Your task to perform on an android device: change alarm snooze length Image 0: 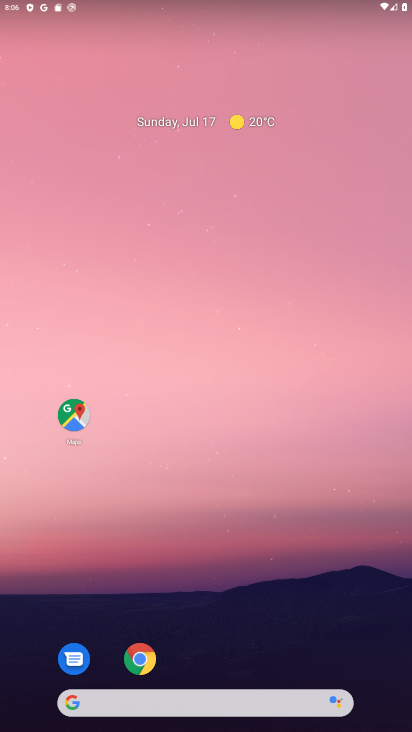
Step 0: drag from (215, 682) to (229, 234)
Your task to perform on an android device: change alarm snooze length Image 1: 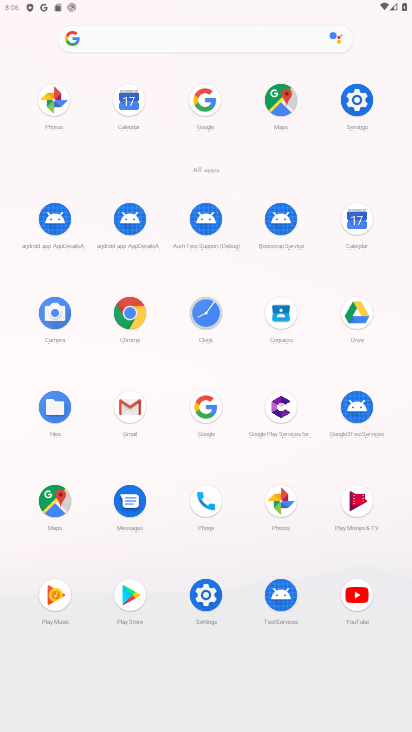
Step 1: click (199, 317)
Your task to perform on an android device: change alarm snooze length Image 2: 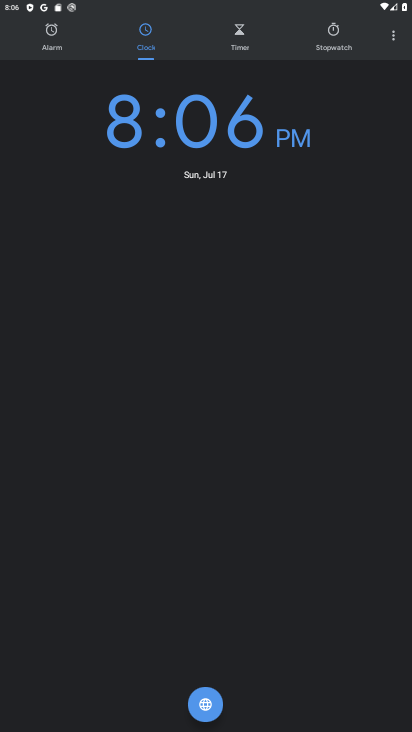
Step 2: click (385, 47)
Your task to perform on an android device: change alarm snooze length Image 3: 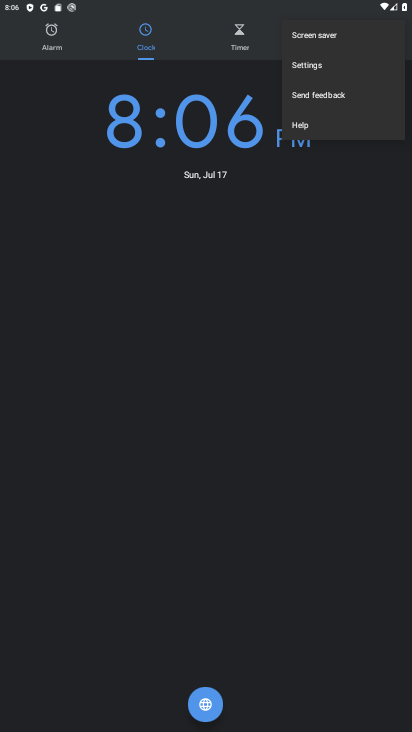
Step 3: click (326, 69)
Your task to perform on an android device: change alarm snooze length Image 4: 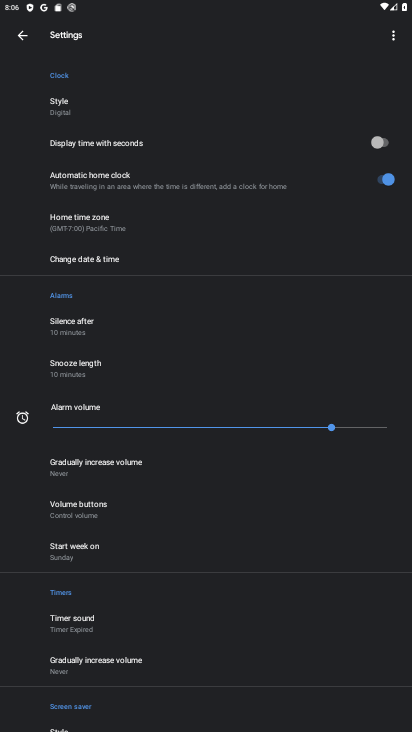
Step 4: click (106, 377)
Your task to perform on an android device: change alarm snooze length Image 5: 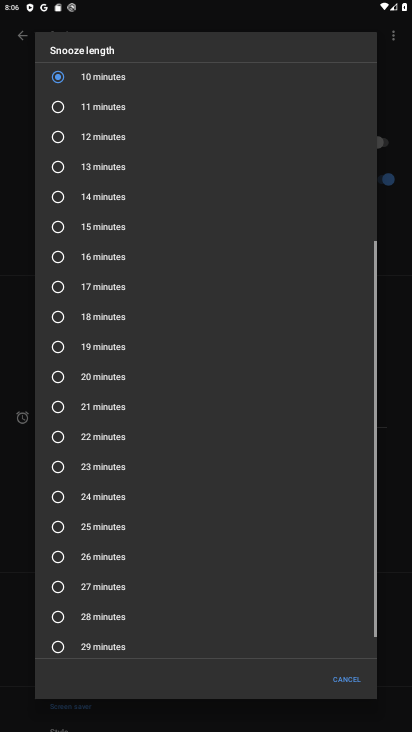
Step 5: click (106, 377)
Your task to perform on an android device: change alarm snooze length Image 6: 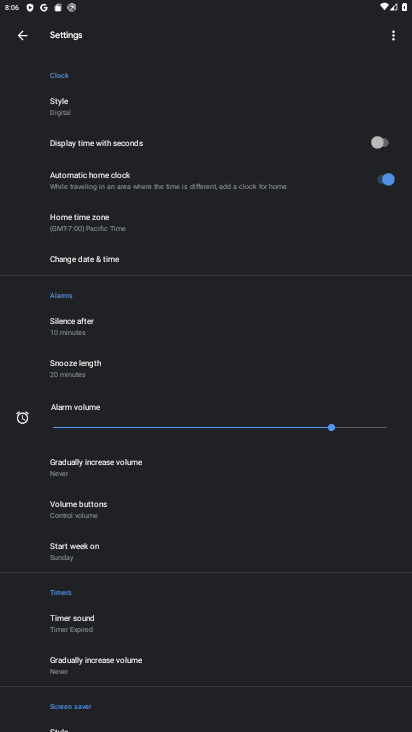
Step 6: task complete